Your task to perform on an android device: open app "Pluto TV - Live TV and Movies" Image 0: 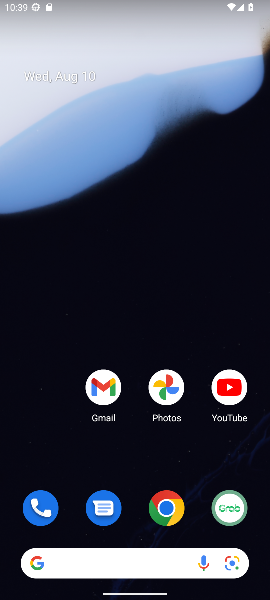
Step 0: drag from (111, 562) to (96, 202)
Your task to perform on an android device: open app "Pluto TV - Live TV and Movies" Image 1: 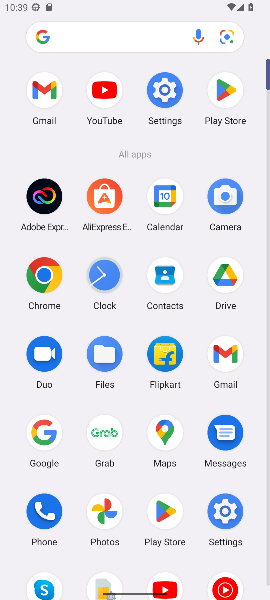
Step 1: click (227, 92)
Your task to perform on an android device: open app "Pluto TV - Live TV and Movies" Image 2: 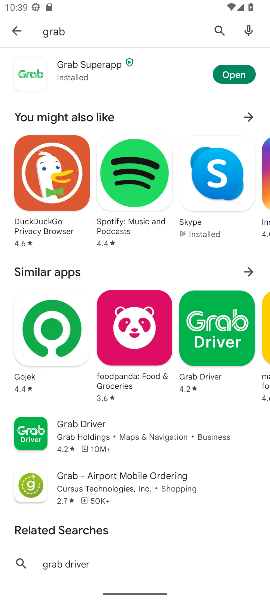
Step 2: click (218, 27)
Your task to perform on an android device: open app "Pluto TV - Live TV and Movies" Image 3: 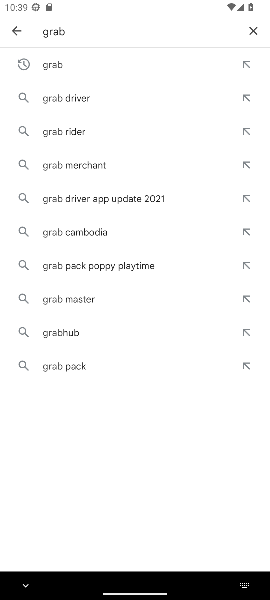
Step 3: click (257, 30)
Your task to perform on an android device: open app "Pluto TV - Live TV and Movies" Image 4: 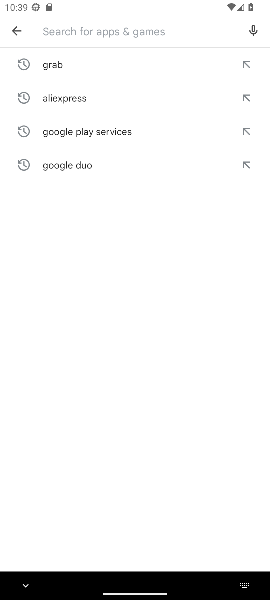
Step 4: type "Pluto TV - Live TV and Movies"
Your task to perform on an android device: open app "Pluto TV - Live TV and Movies" Image 5: 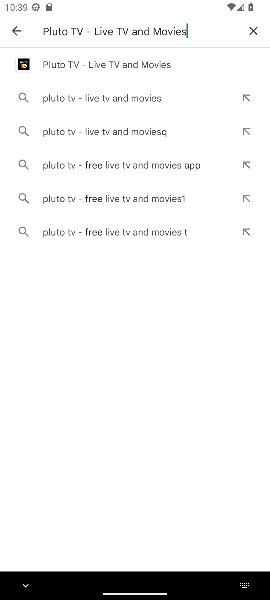
Step 5: click (90, 62)
Your task to perform on an android device: open app "Pluto TV - Live TV and Movies" Image 6: 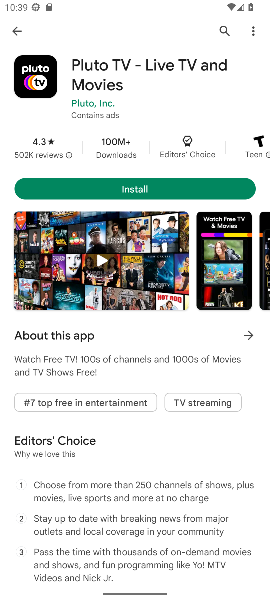
Step 6: click (130, 192)
Your task to perform on an android device: open app "Pluto TV - Live TV and Movies" Image 7: 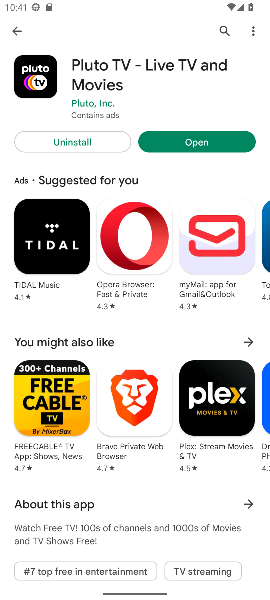
Step 7: click (182, 140)
Your task to perform on an android device: open app "Pluto TV - Live TV and Movies" Image 8: 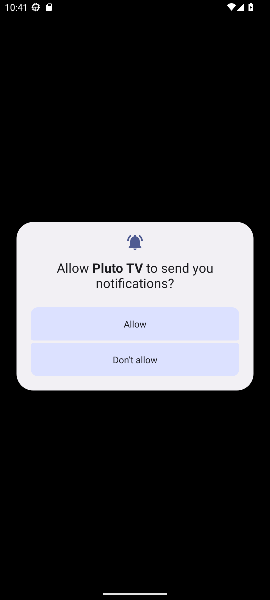
Step 8: task complete